Your task to perform on an android device: Go to Android settings Image 0: 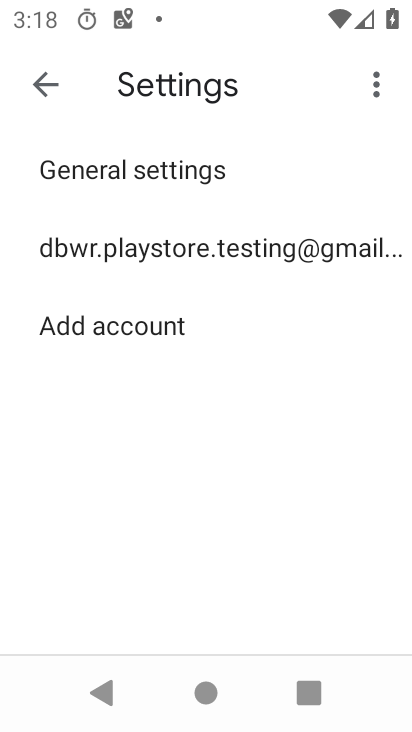
Step 0: press home button
Your task to perform on an android device: Go to Android settings Image 1: 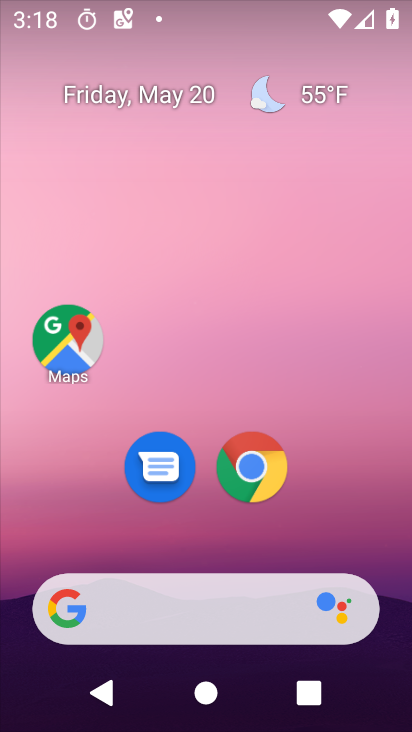
Step 1: drag from (171, 560) to (281, 76)
Your task to perform on an android device: Go to Android settings Image 2: 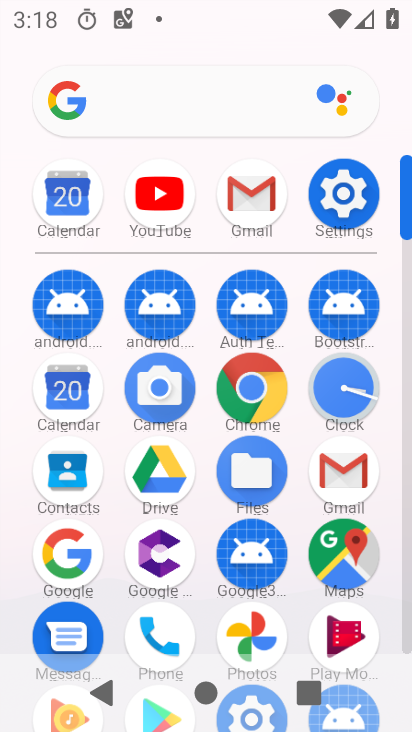
Step 2: click (357, 196)
Your task to perform on an android device: Go to Android settings Image 3: 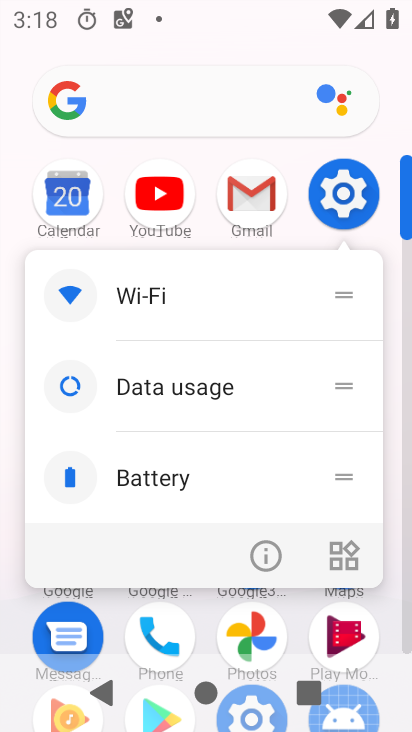
Step 3: click (346, 189)
Your task to perform on an android device: Go to Android settings Image 4: 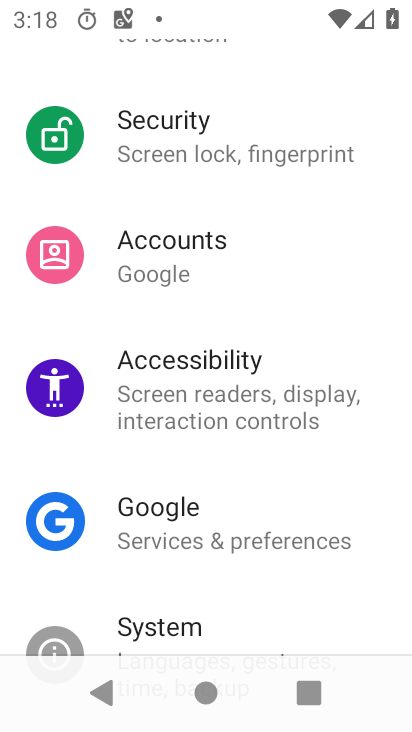
Step 4: click (179, 633)
Your task to perform on an android device: Go to Android settings Image 5: 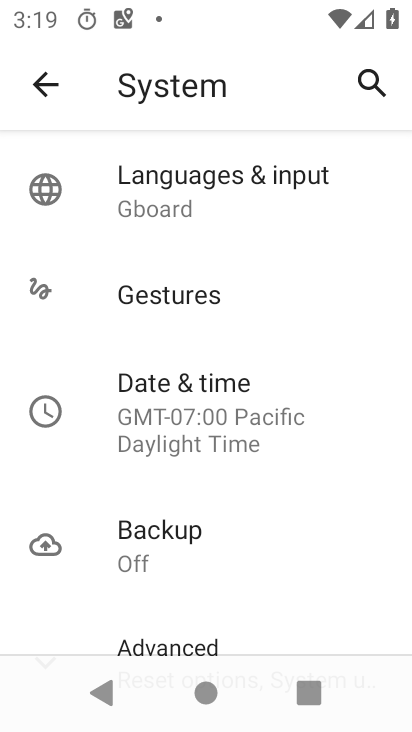
Step 5: click (47, 100)
Your task to perform on an android device: Go to Android settings Image 6: 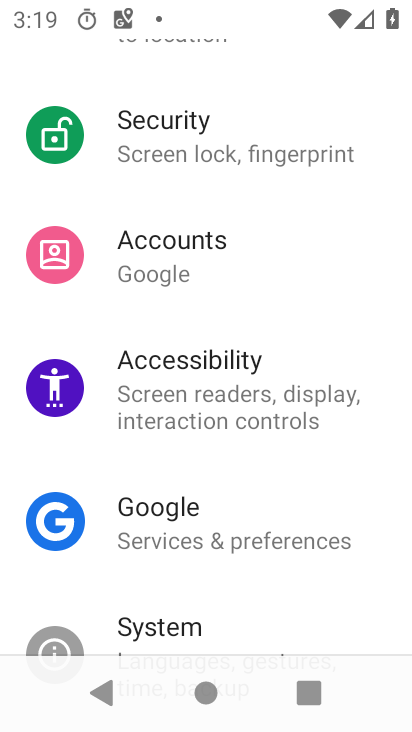
Step 6: click (187, 616)
Your task to perform on an android device: Go to Android settings Image 7: 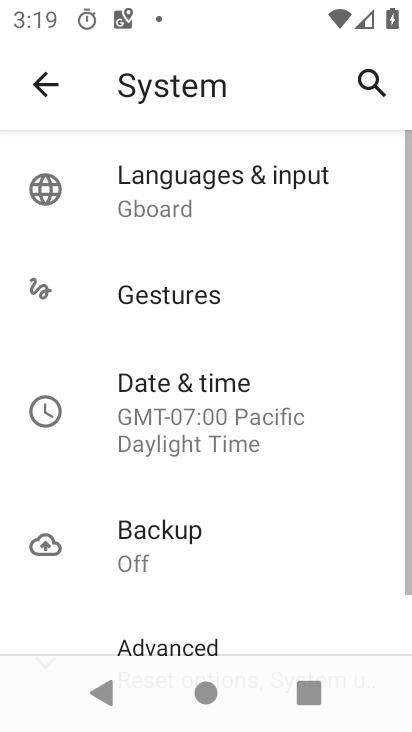
Step 7: task complete